Your task to perform on an android device: Open location settings Image 0: 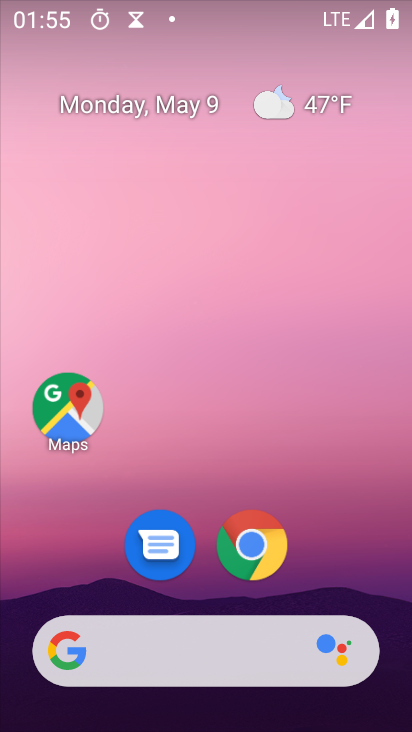
Step 0: drag from (343, 610) to (299, 21)
Your task to perform on an android device: Open location settings Image 1: 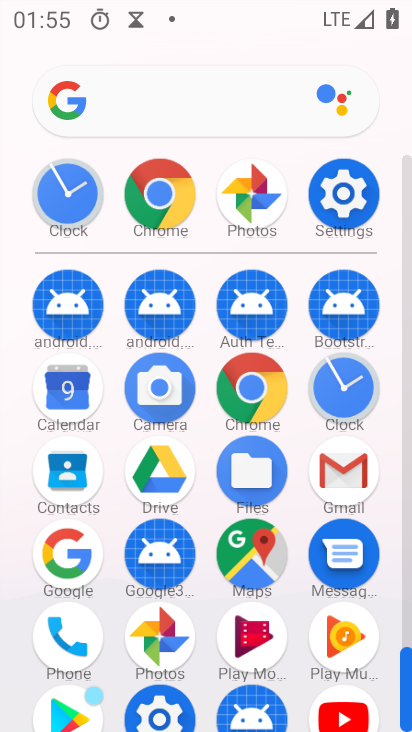
Step 1: click (345, 188)
Your task to perform on an android device: Open location settings Image 2: 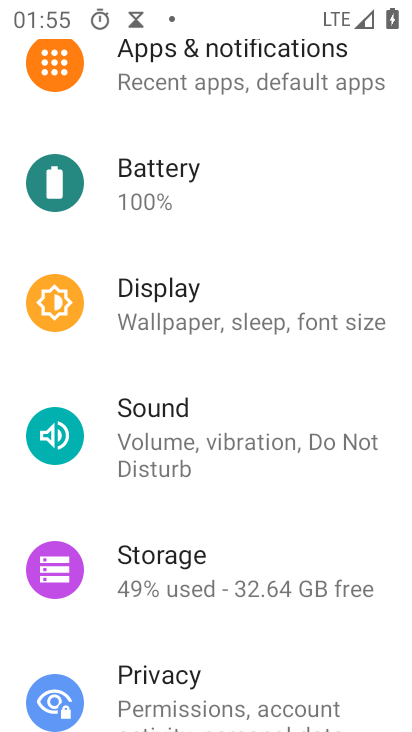
Step 2: drag from (248, 181) to (266, 47)
Your task to perform on an android device: Open location settings Image 3: 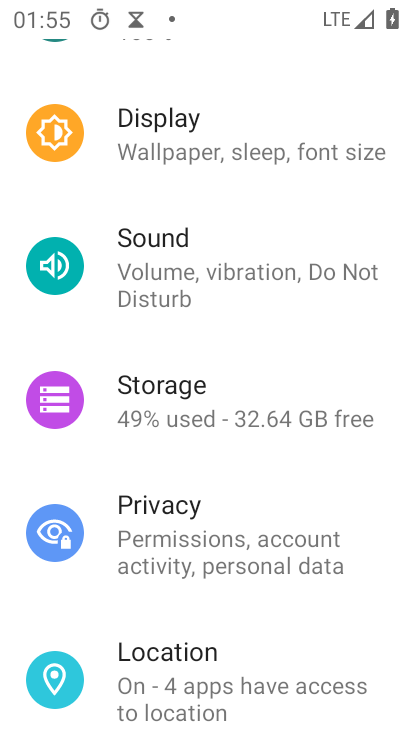
Step 3: click (190, 669)
Your task to perform on an android device: Open location settings Image 4: 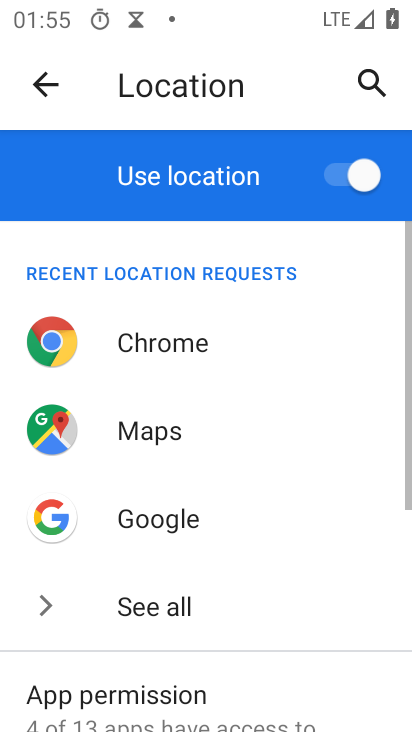
Step 4: drag from (307, 689) to (286, 141)
Your task to perform on an android device: Open location settings Image 5: 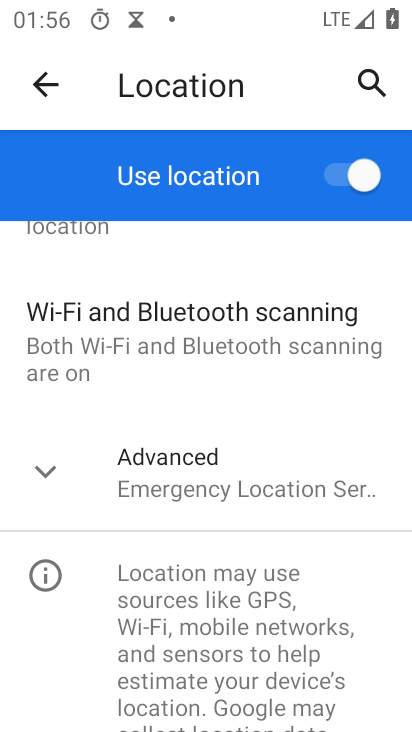
Step 5: click (247, 482)
Your task to perform on an android device: Open location settings Image 6: 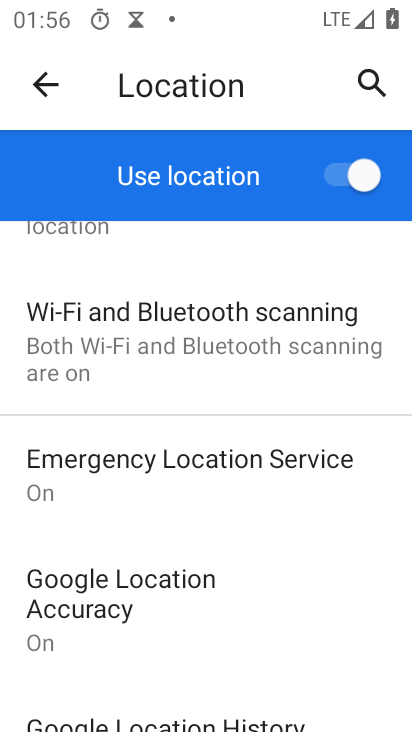
Step 6: task complete